Your task to perform on an android device: open the mobile data screen to see how much data has been used Image 0: 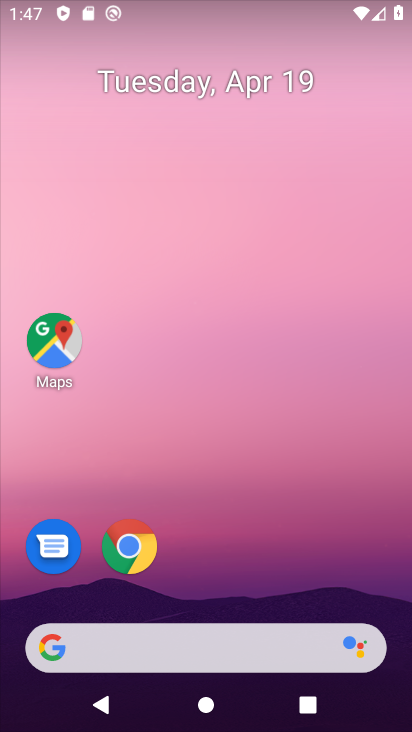
Step 0: drag from (210, 638) to (133, 39)
Your task to perform on an android device: open the mobile data screen to see how much data has been used Image 1: 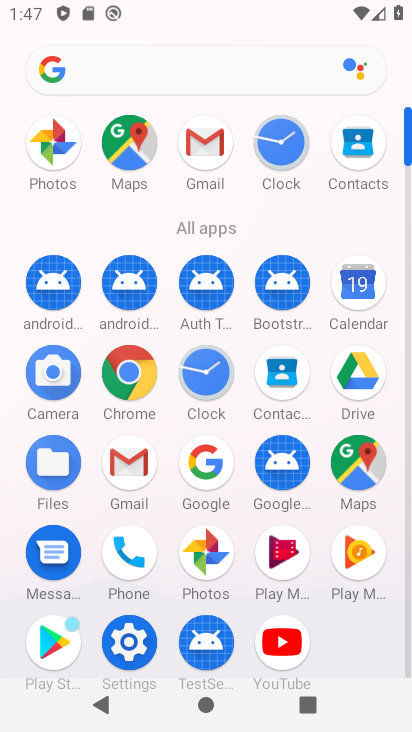
Step 1: click (139, 665)
Your task to perform on an android device: open the mobile data screen to see how much data has been used Image 2: 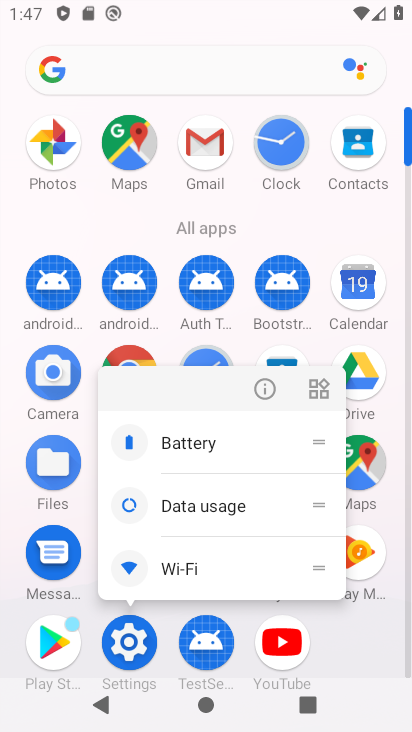
Step 2: click (144, 633)
Your task to perform on an android device: open the mobile data screen to see how much data has been used Image 3: 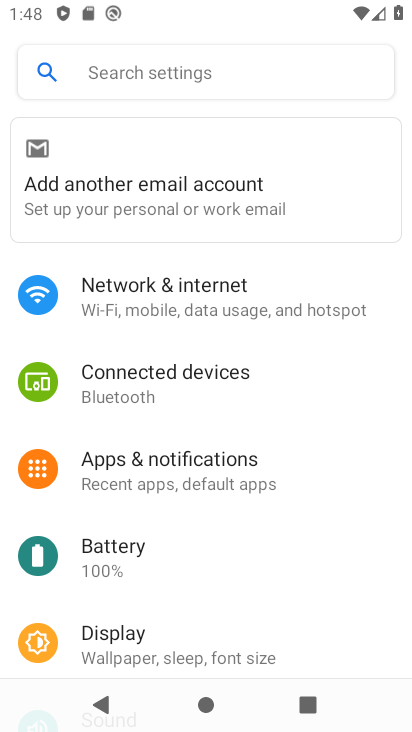
Step 3: click (141, 298)
Your task to perform on an android device: open the mobile data screen to see how much data has been used Image 4: 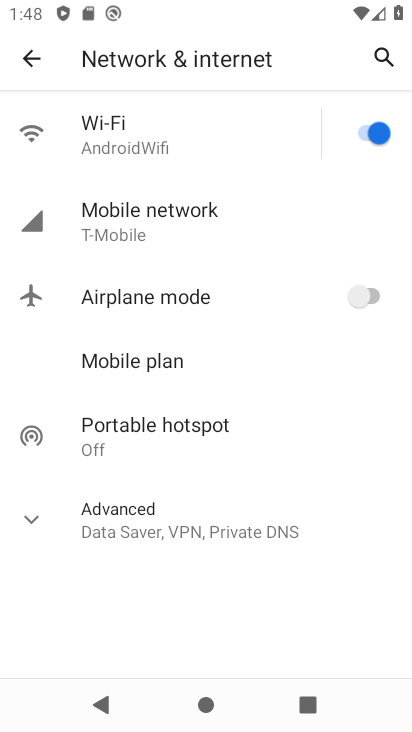
Step 4: click (121, 224)
Your task to perform on an android device: open the mobile data screen to see how much data has been used Image 5: 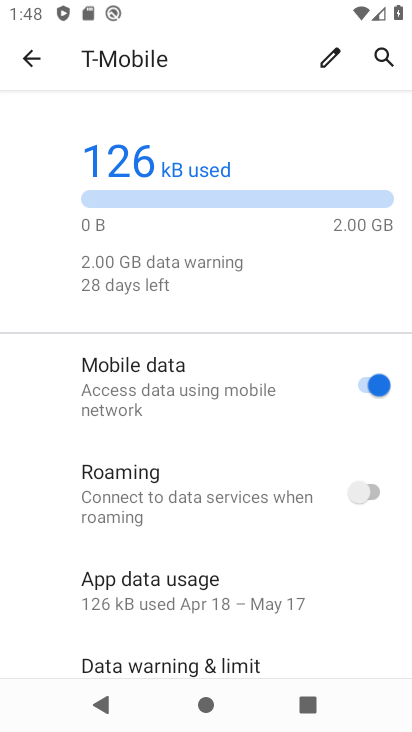
Step 5: task complete